Your task to perform on an android device: open sync settings in chrome Image 0: 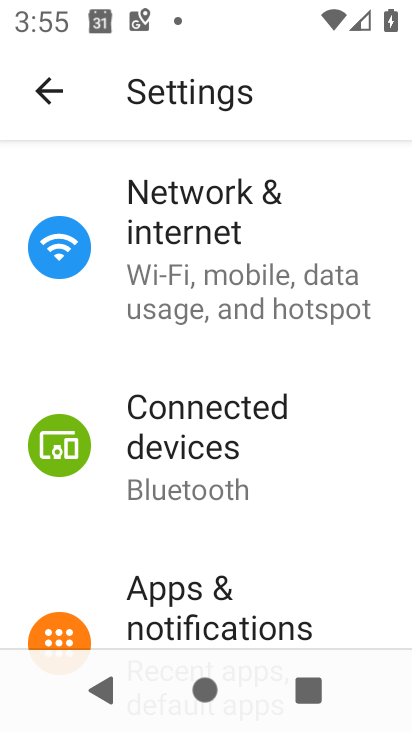
Step 0: press home button
Your task to perform on an android device: open sync settings in chrome Image 1: 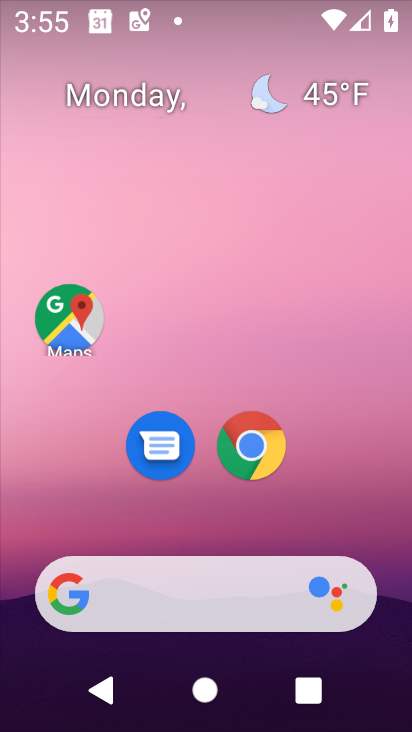
Step 1: click (265, 446)
Your task to perform on an android device: open sync settings in chrome Image 2: 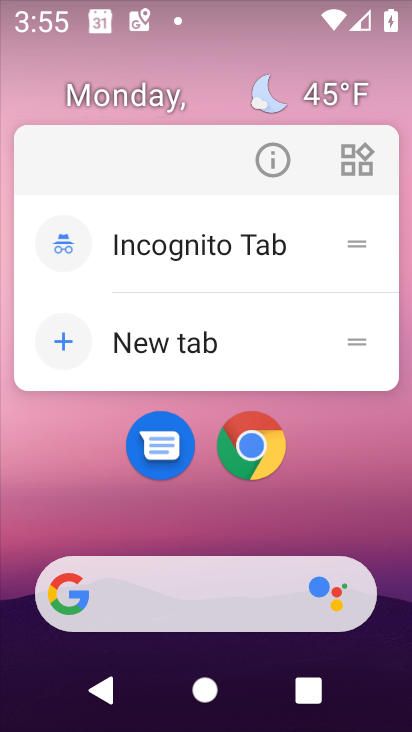
Step 2: click (265, 446)
Your task to perform on an android device: open sync settings in chrome Image 3: 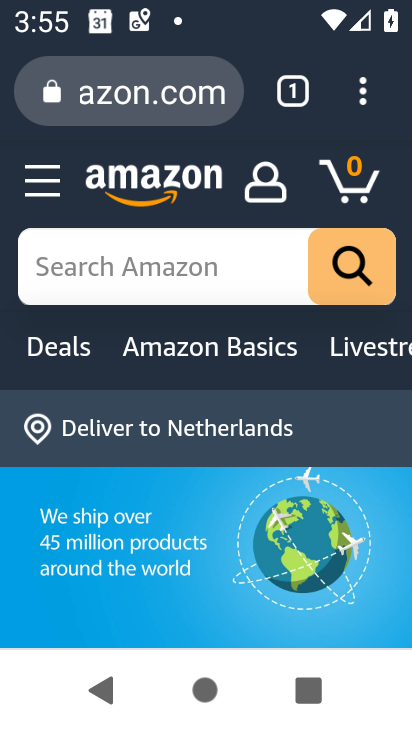
Step 3: click (361, 82)
Your task to perform on an android device: open sync settings in chrome Image 4: 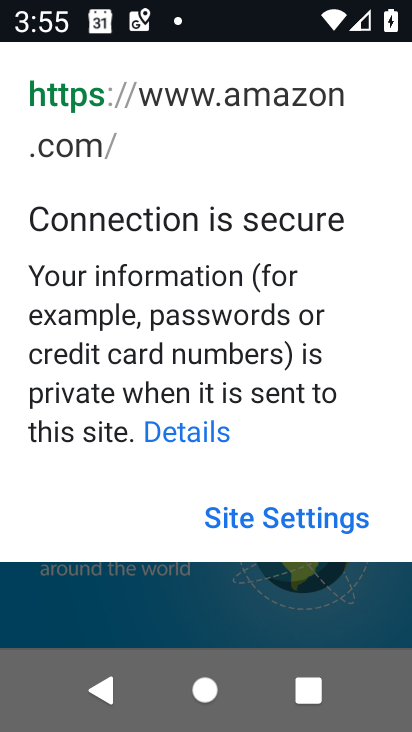
Step 4: click (234, 587)
Your task to perform on an android device: open sync settings in chrome Image 5: 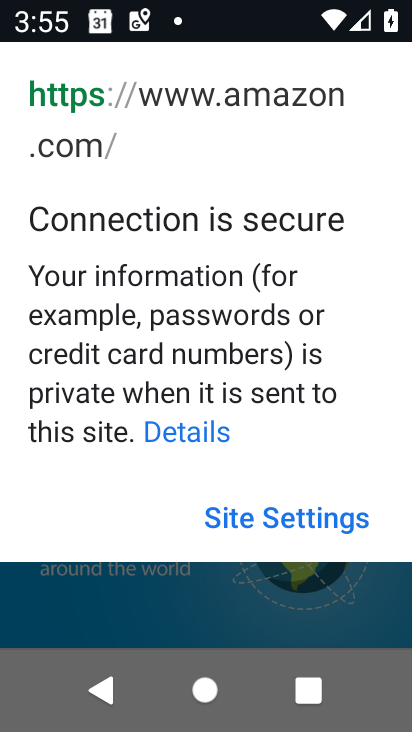
Step 5: press back button
Your task to perform on an android device: open sync settings in chrome Image 6: 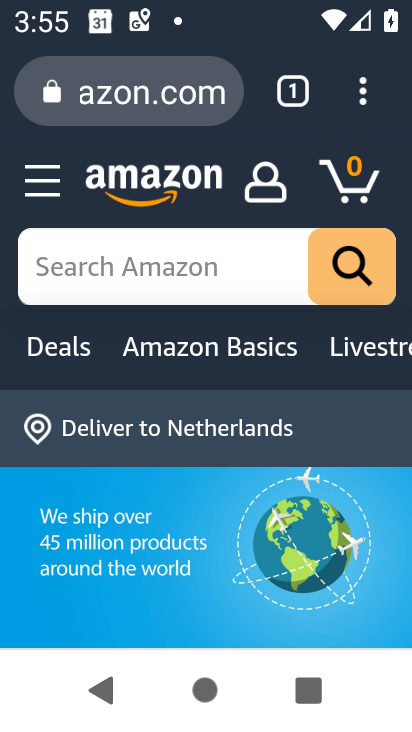
Step 6: click (358, 88)
Your task to perform on an android device: open sync settings in chrome Image 7: 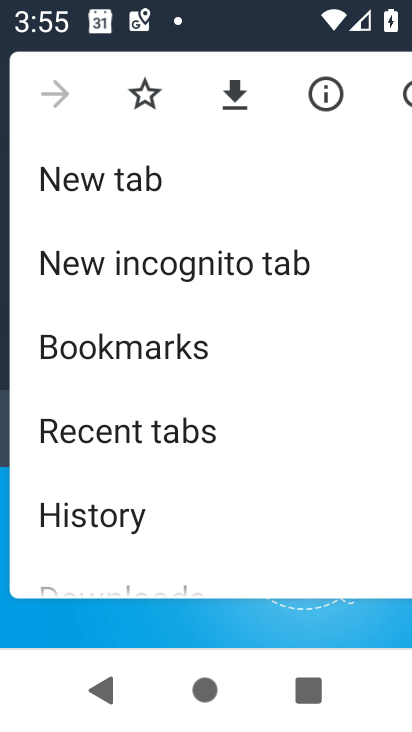
Step 7: drag from (139, 512) to (122, 174)
Your task to perform on an android device: open sync settings in chrome Image 8: 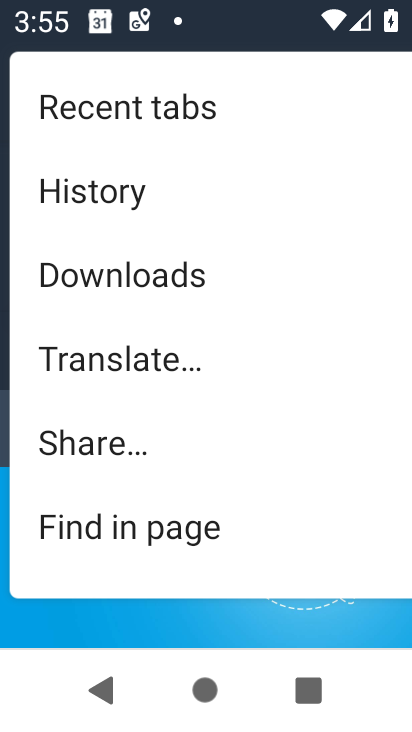
Step 8: drag from (127, 504) to (130, 181)
Your task to perform on an android device: open sync settings in chrome Image 9: 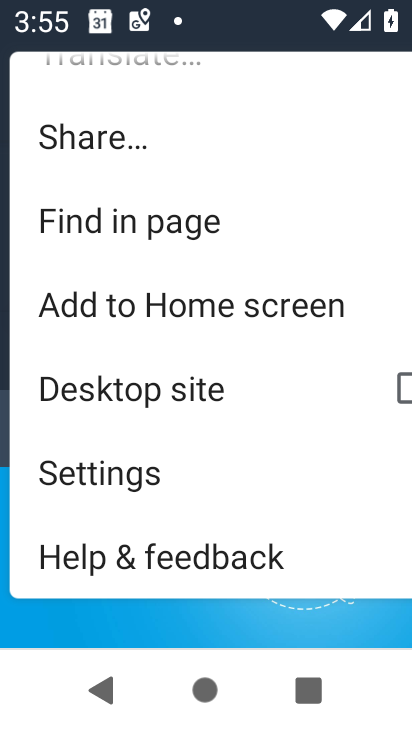
Step 9: click (129, 480)
Your task to perform on an android device: open sync settings in chrome Image 10: 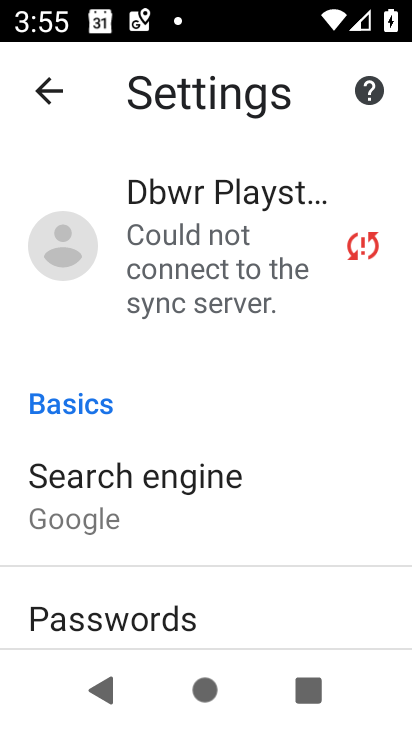
Step 10: click (197, 269)
Your task to perform on an android device: open sync settings in chrome Image 11: 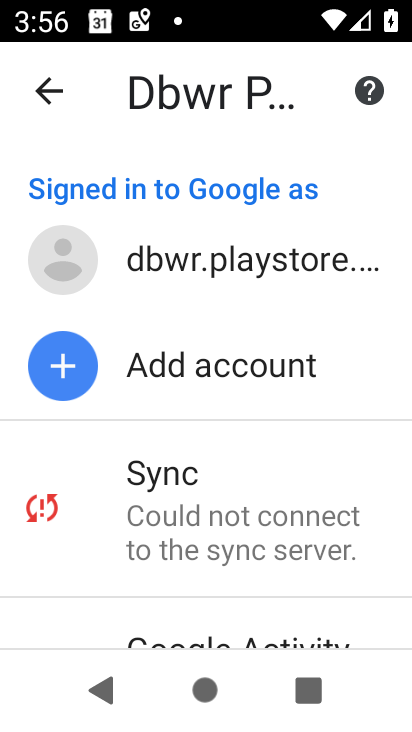
Step 11: click (227, 480)
Your task to perform on an android device: open sync settings in chrome Image 12: 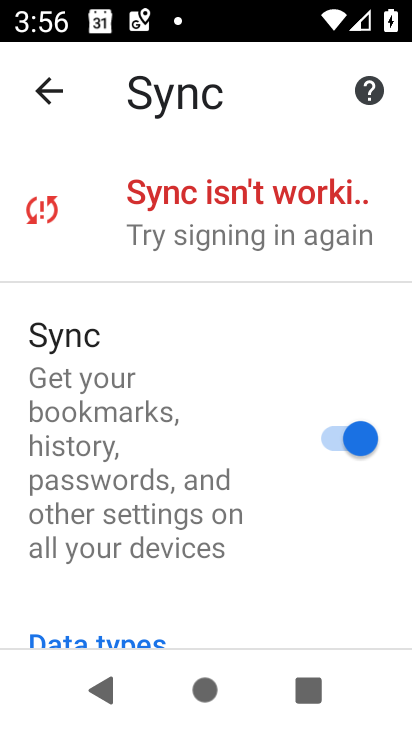
Step 12: task complete